Your task to perform on an android device: open app "DoorDash - Dasher" Image 0: 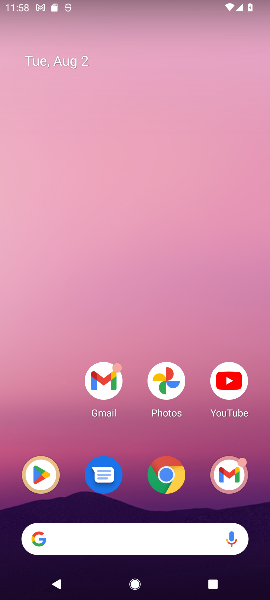
Step 0: click (44, 481)
Your task to perform on an android device: open app "DoorDash - Dasher" Image 1: 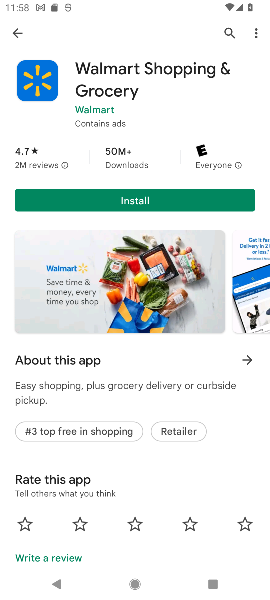
Step 1: click (227, 27)
Your task to perform on an android device: open app "DoorDash - Dasher" Image 2: 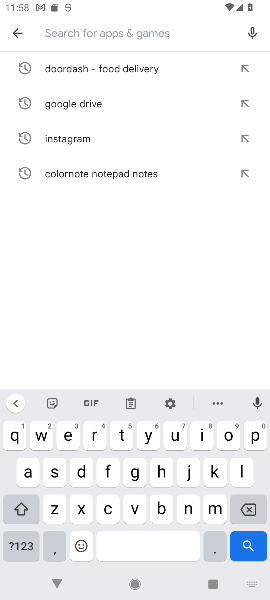
Step 2: type """
Your task to perform on an android device: open app "DoorDash - Dasher" Image 3: 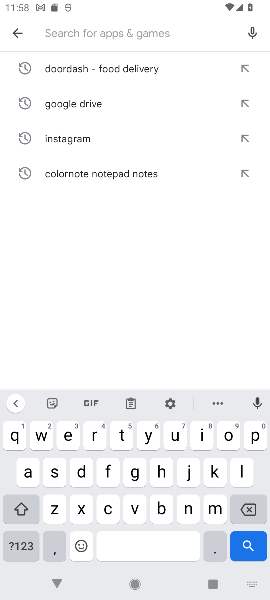
Step 3: type "DoorDash - Dasher"
Your task to perform on an android device: open app "DoorDash - Dasher" Image 4: 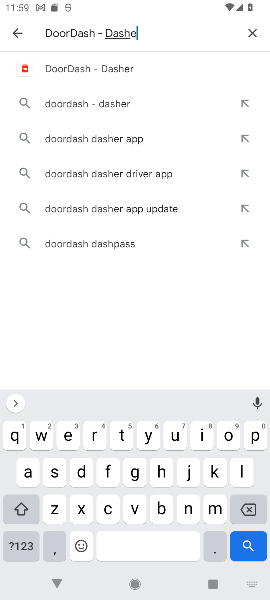
Step 4: type ""
Your task to perform on an android device: open app "DoorDash - Dasher" Image 5: 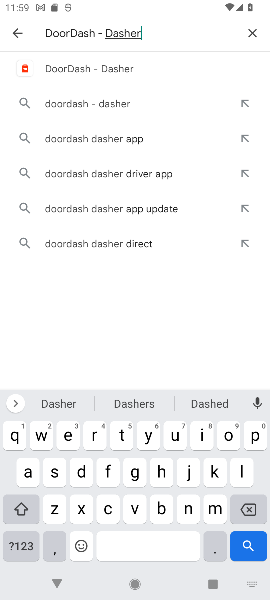
Step 5: click (163, 70)
Your task to perform on an android device: open app "DoorDash - Dasher" Image 6: 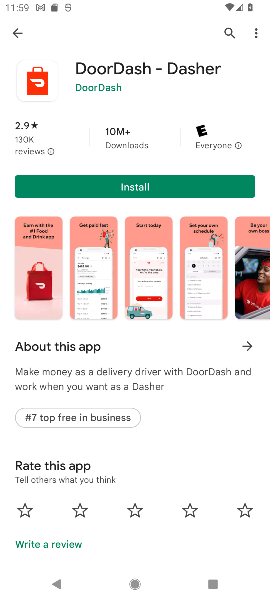
Step 6: task complete